Your task to perform on an android device: Add "razer thresher" to the cart on costco, then select checkout. Image 0: 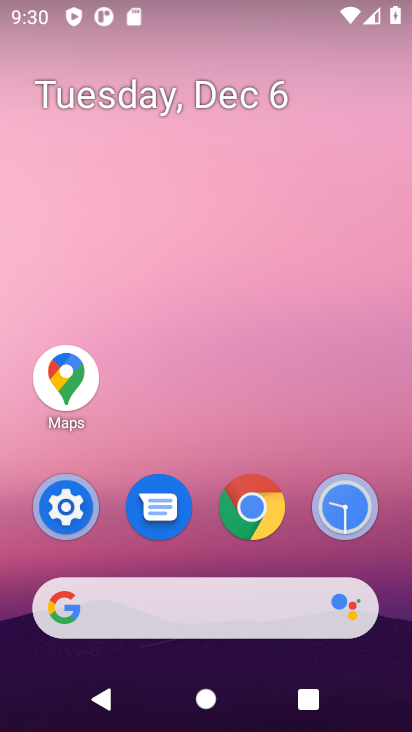
Step 0: press home button
Your task to perform on an android device: Add "razer thresher" to the cart on costco, then select checkout. Image 1: 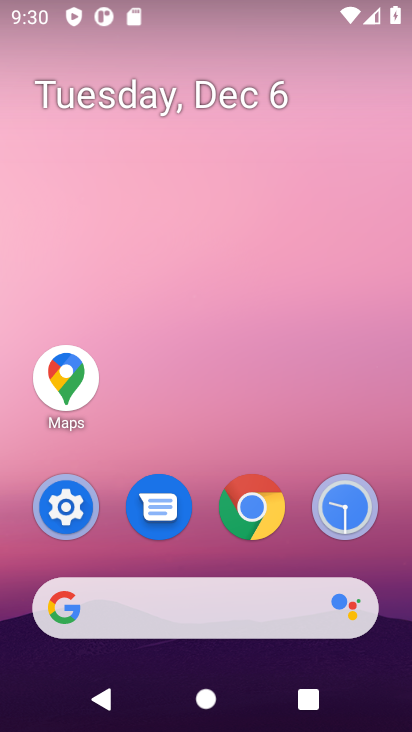
Step 1: click (109, 605)
Your task to perform on an android device: Add "razer thresher" to the cart on costco, then select checkout. Image 2: 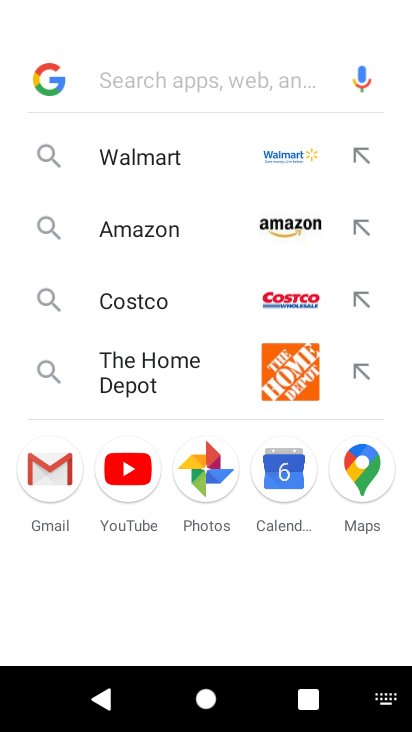
Step 2: type "costco"
Your task to perform on an android device: Add "razer thresher" to the cart on costco, then select checkout. Image 3: 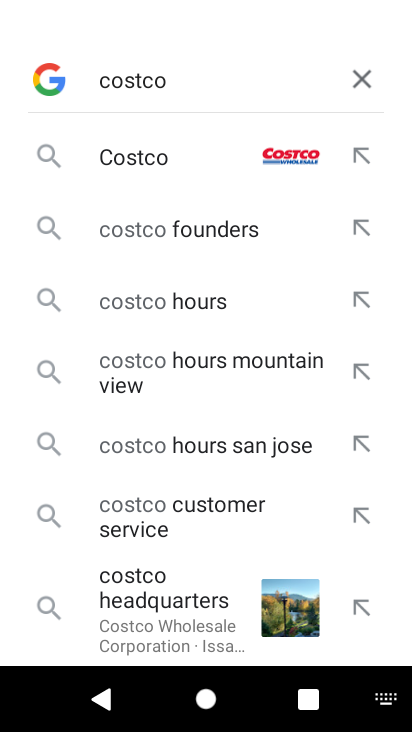
Step 3: press enter
Your task to perform on an android device: Add "razer thresher" to the cart on costco, then select checkout. Image 4: 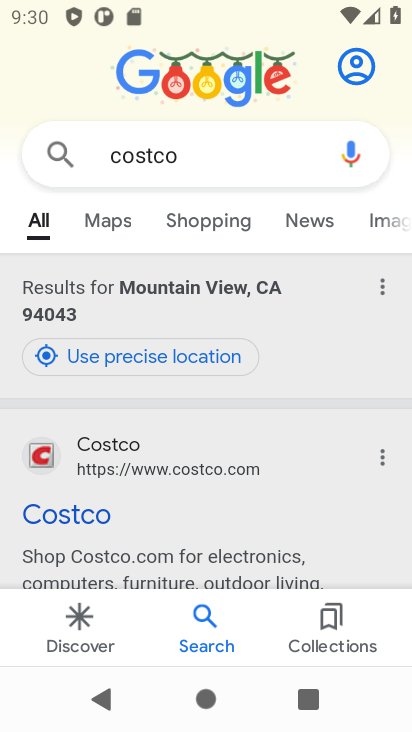
Step 4: click (73, 512)
Your task to perform on an android device: Add "razer thresher" to the cart on costco, then select checkout. Image 5: 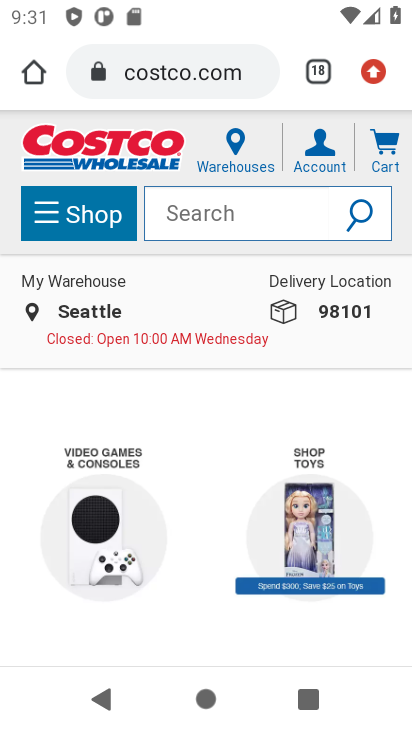
Step 5: click (196, 215)
Your task to perform on an android device: Add "razer thresher" to the cart on costco, then select checkout. Image 6: 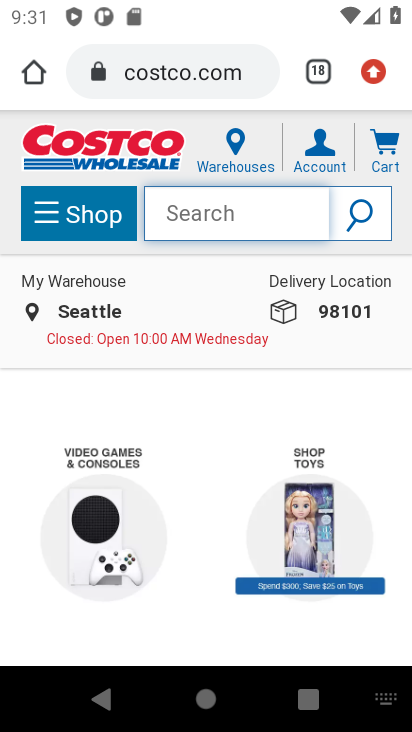
Step 6: type "razer thresher"
Your task to perform on an android device: Add "razer thresher" to the cart on costco, then select checkout. Image 7: 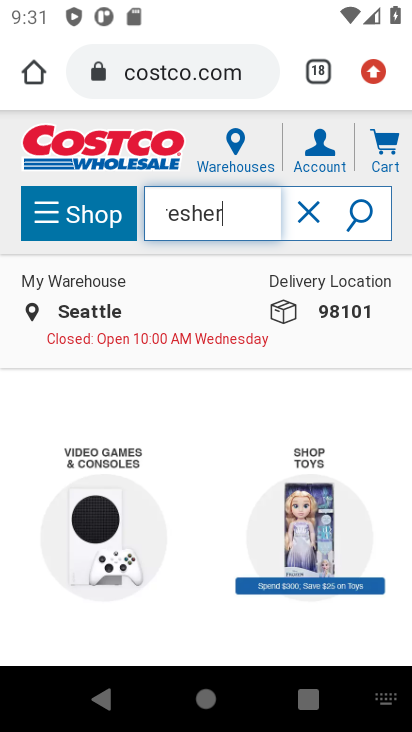
Step 7: press enter
Your task to perform on an android device: Add "razer thresher" to the cart on costco, then select checkout. Image 8: 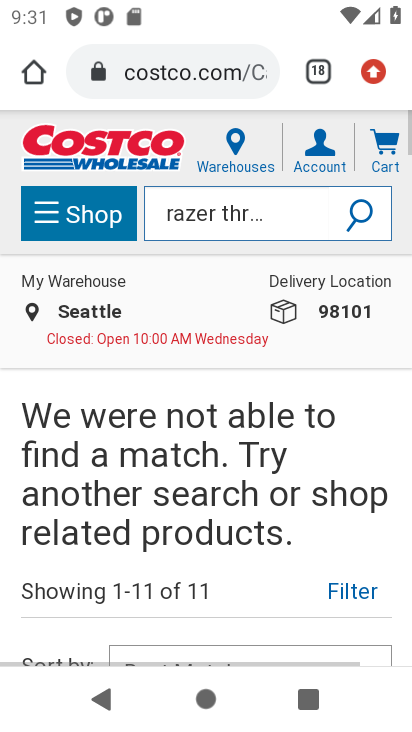
Step 8: task complete